Your task to perform on an android device: What's the weather going to be this weekend? Image 0: 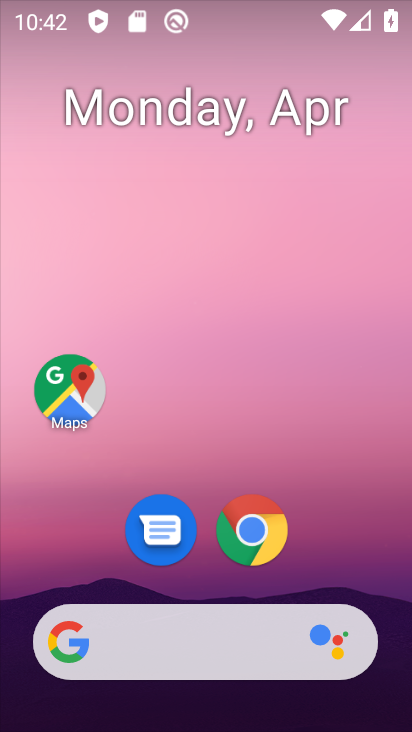
Step 0: drag from (372, 568) to (348, 58)
Your task to perform on an android device: What's the weather going to be this weekend? Image 1: 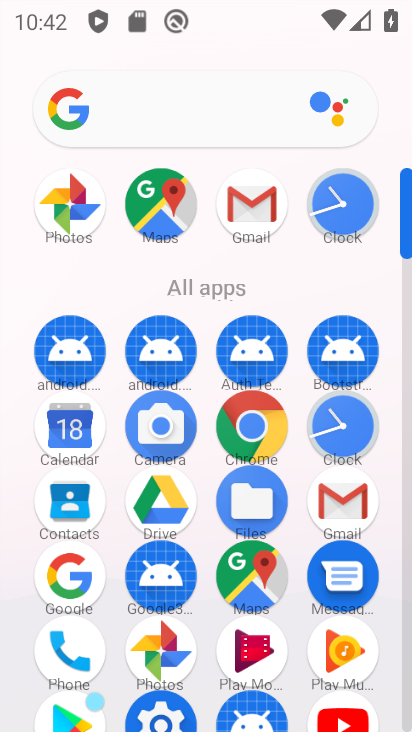
Step 1: task complete